Your task to perform on an android device: delete a single message in the gmail app Image 0: 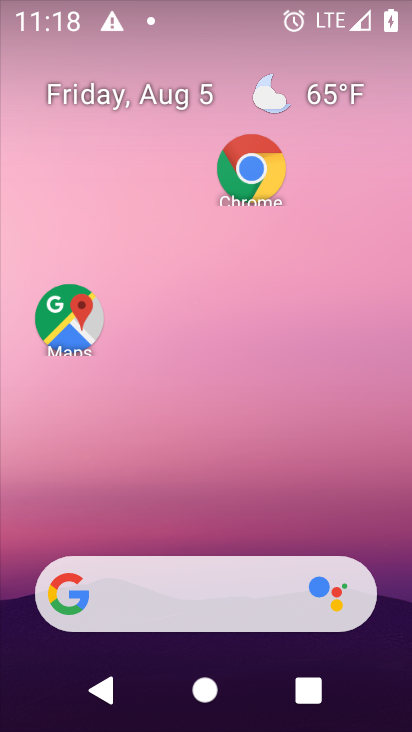
Step 0: drag from (206, 514) to (148, 106)
Your task to perform on an android device: delete a single message in the gmail app Image 1: 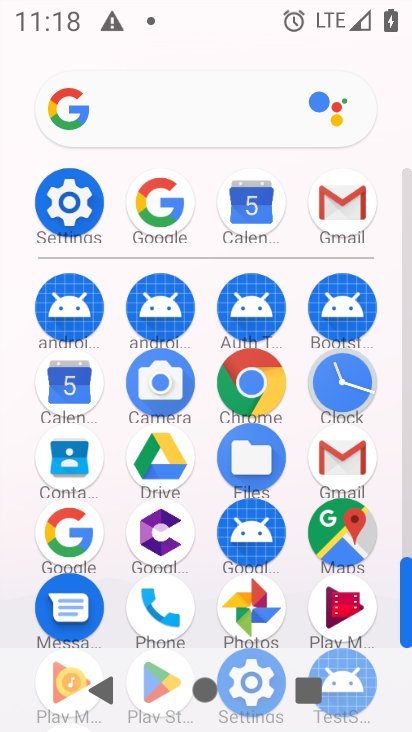
Step 1: click (331, 202)
Your task to perform on an android device: delete a single message in the gmail app Image 2: 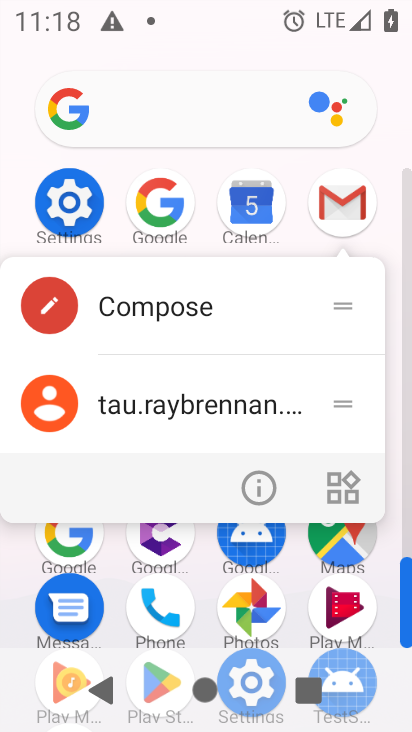
Step 2: click (313, 202)
Your task to perform on an android device: delete a single message in the gmail app Image 3: 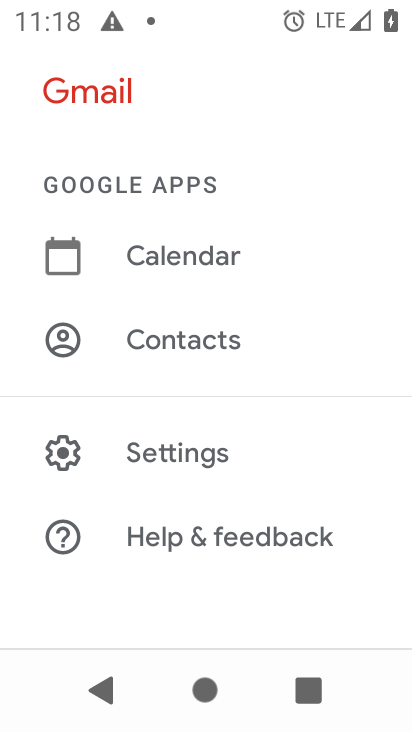
Step 3: task complete